Your task to perform on an android device: Open Android settings Image 0: 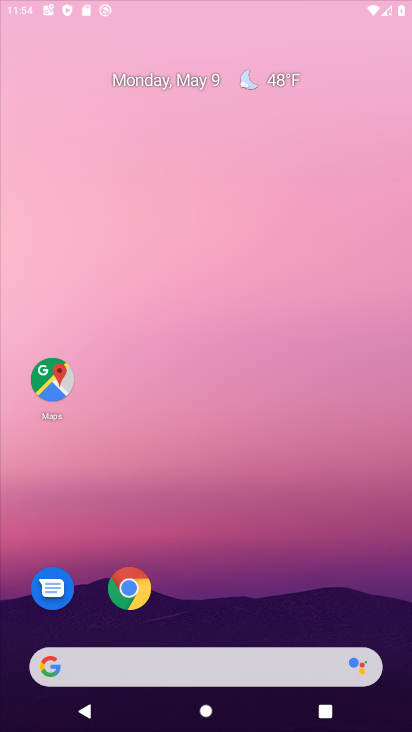
Step 0: click (300, 665)
Your task to perform on an android device: Open Android settings Image 1: 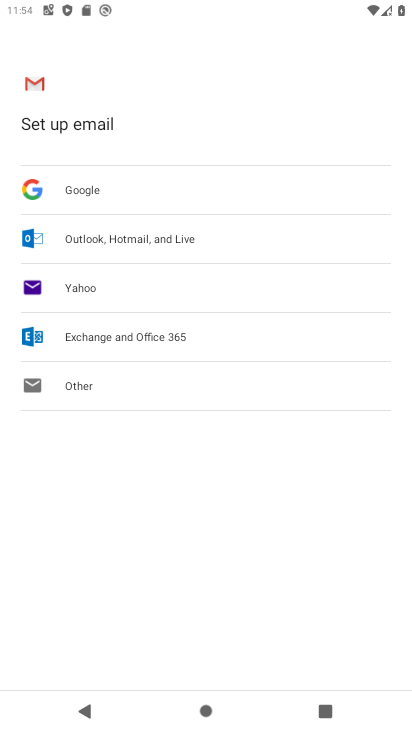
Step 1: press home button
Your task to perform on an android device: Open Android settings Image 2: 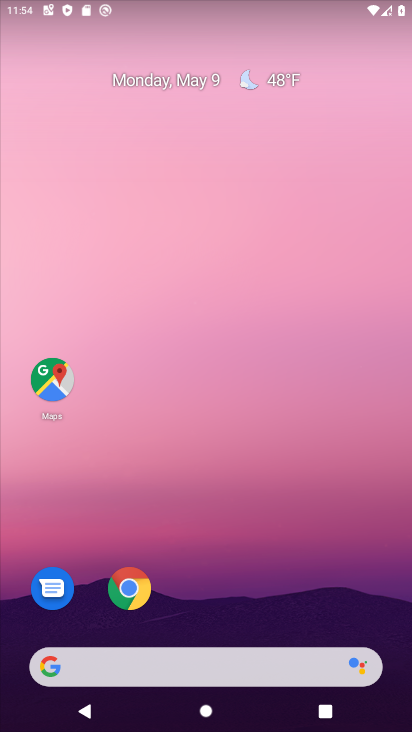
Step 2: drag from (263, 559) to (253, 391)
Your task to perform on an android device: Open Android settings Image 3: 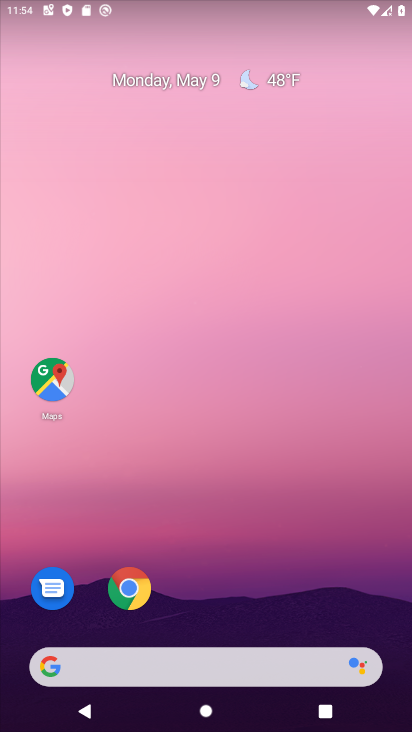
Step 3: drag from (250, 532) to (290, 271)
Your task to perform on an android device: Open Android settings Image 4: 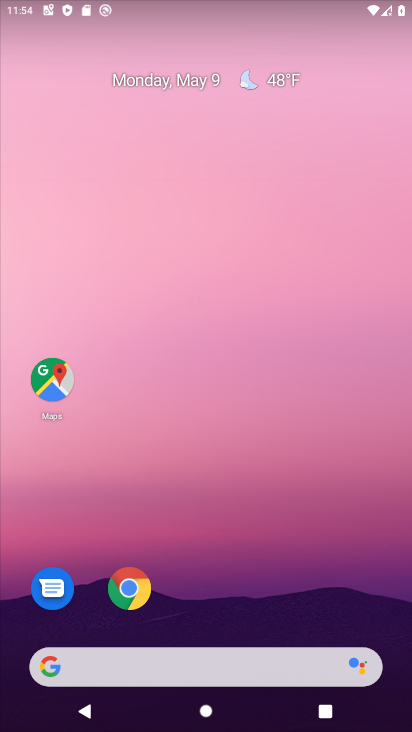
Step 4: drag from (244, 560) to (259, 187)
Your task to perform on an android device: Open Android settings Image 5: 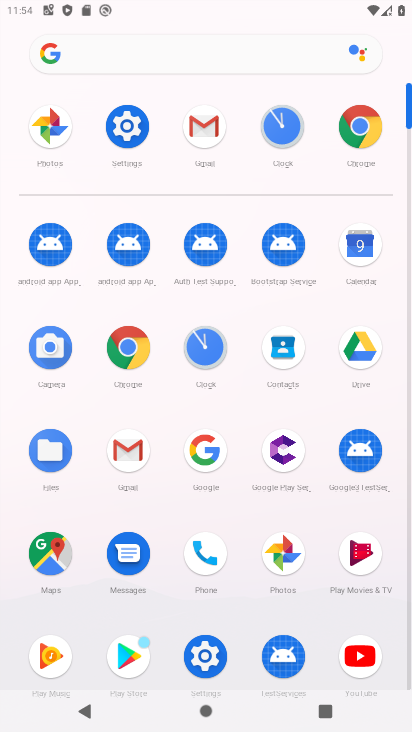
Step 5: click (127, 126)
Your task to perform on an android device: Open Android settings Image 6: 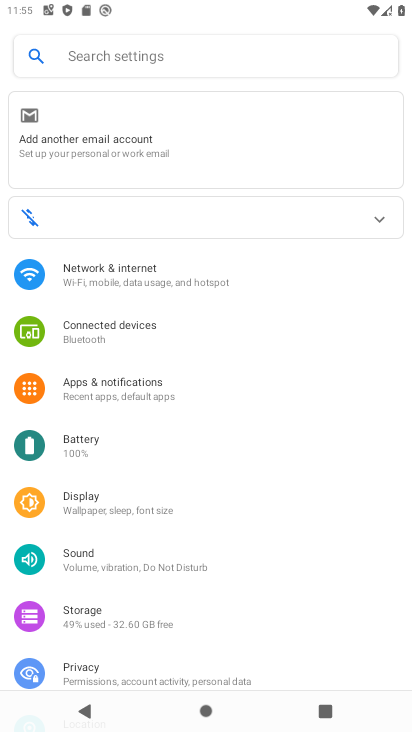
Step 6: task complete